Your task to perform on an android device: Open the map Image 0: 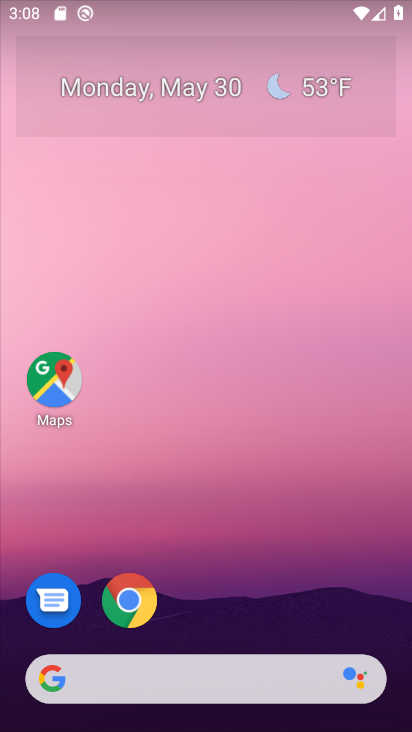
Step 0: drag from (264, 579) to (282, 58)
Your task to perform on an android device: Open the map Image 1: 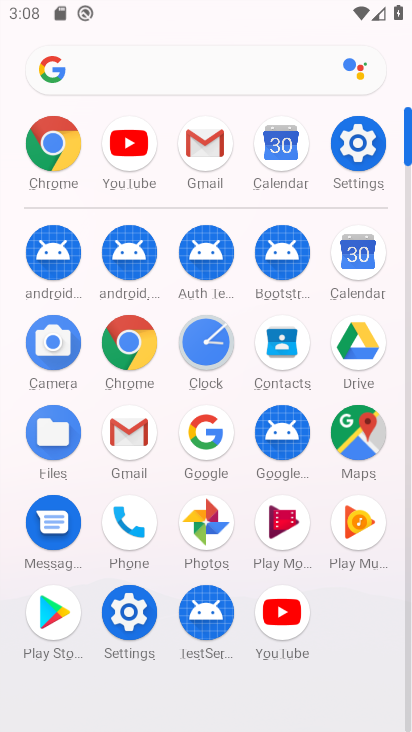
Step 1: click (364, 439)
Your task to perform on an android device: Open the map Image 2: 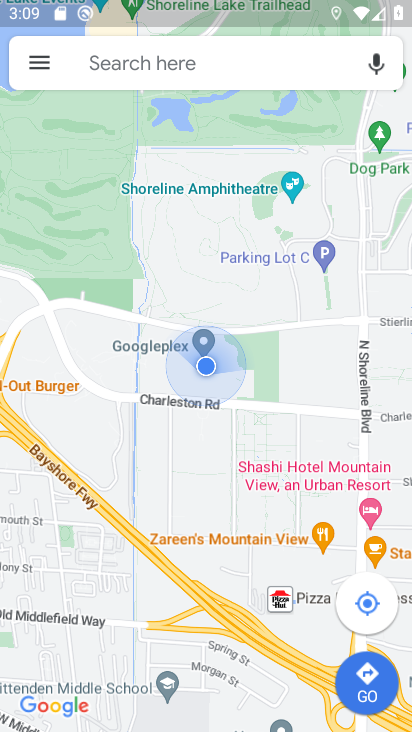
Step 2: task complete